Your task to perform on an android device: Open Reddit.com Image 0: 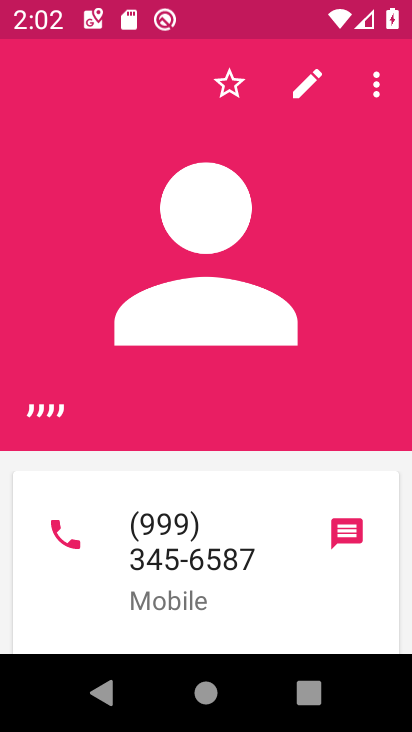
Step 0: press home button
Your task to perform on an android device: Open Reddit.com Image 1: 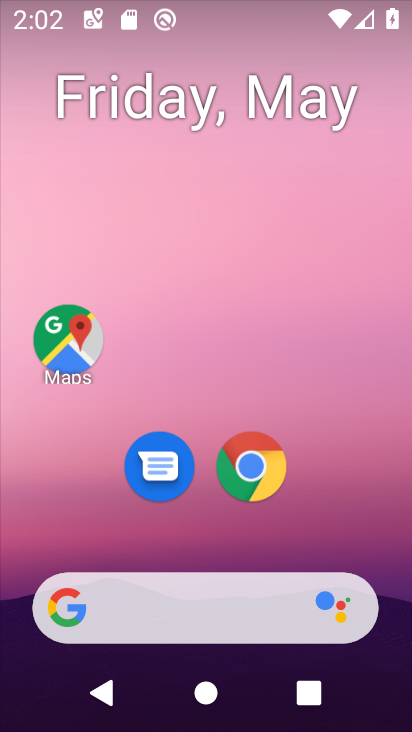
Step 1: drag from (377, 520) to (412, 93)
Your task to perform on an android device: Open Reddit.com Image 2: 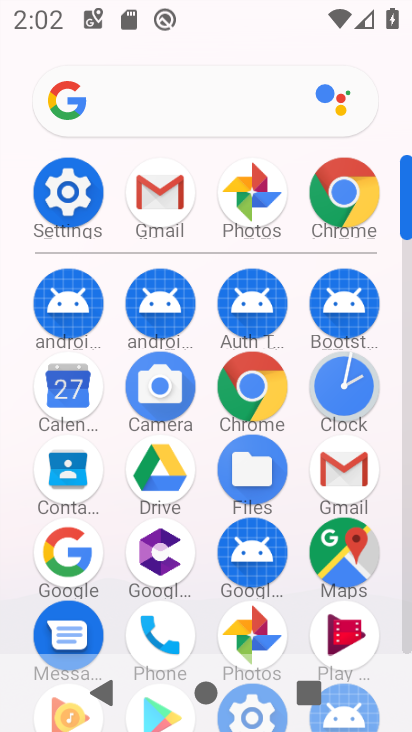
Step 2: click (334, 212)
Your task to perform on an android device: Open Reddit.com Image 3: 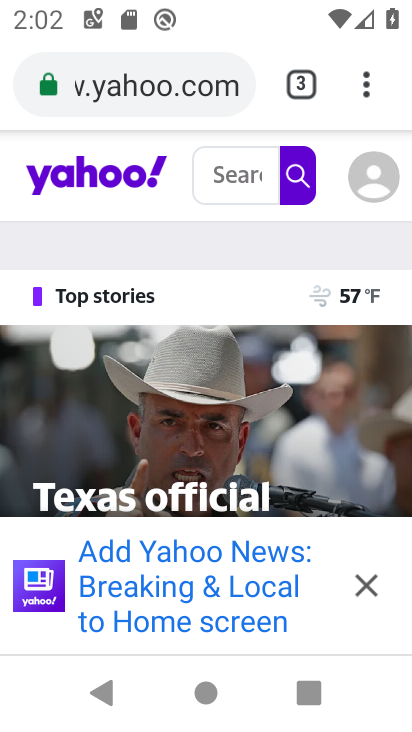
Step 3: click (178, 96)
Your task to perform on an android device: Open Reddit.com Image 4: 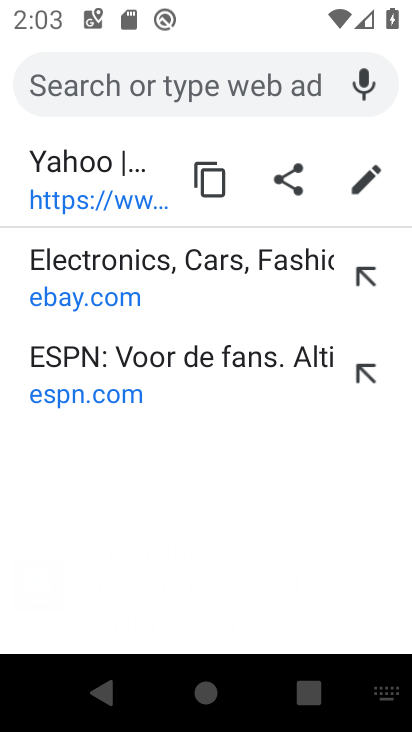
Step 4: type "reddit"
Your task to perform on an android device: Open Reddit.com Image 5: 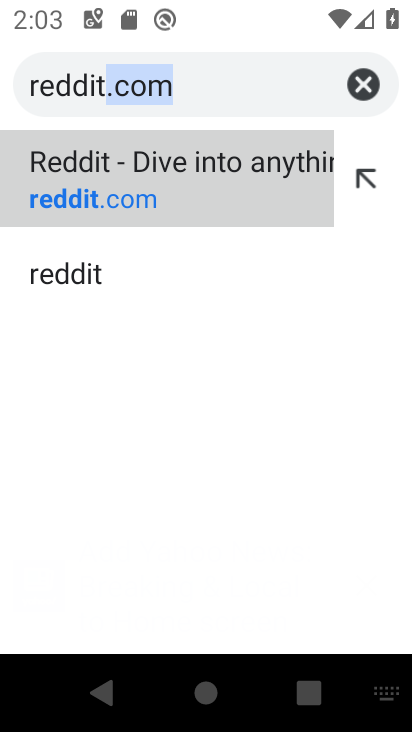
Step 5: click (110, 192)
Your task to perform on an android device: Open Reddit.com Image 6: 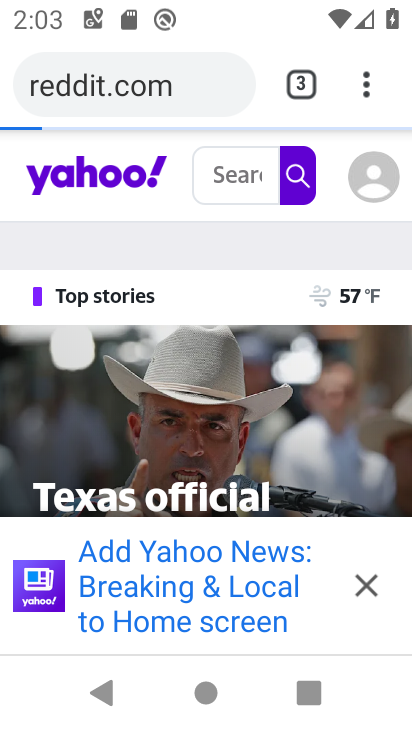
Step 6: click (111, 193)
Your task to perform on an android device: Open Reddit.com Image 7: 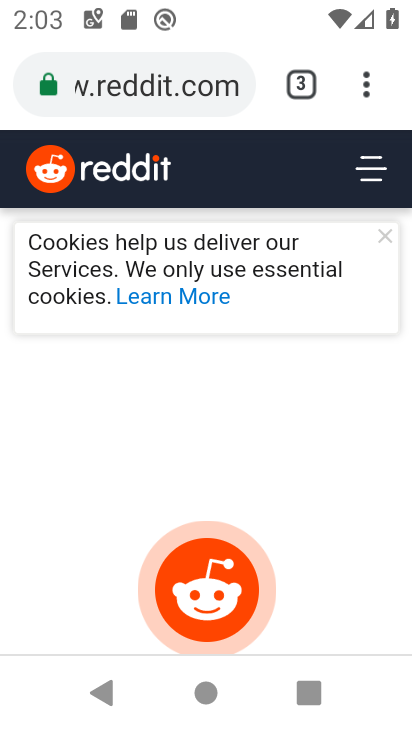
Step 7: task complete